Your task to perform on an android device: Go to display settings Image 0: 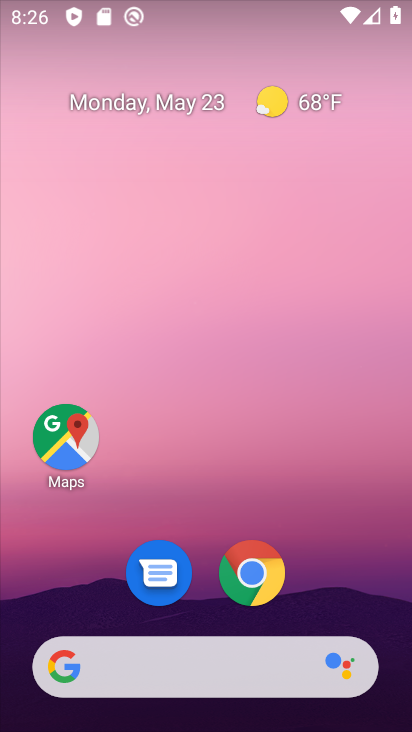
Step 0: press home button
Your task to perform on an android device: Go to display settings Image 1: 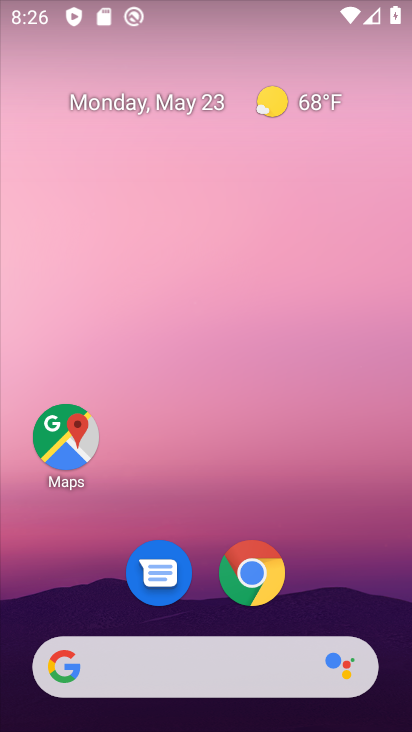
Step 1: drag from (200, 617) to (205, 80)
Your task to perform on an android device: Go to display settings Image 2: 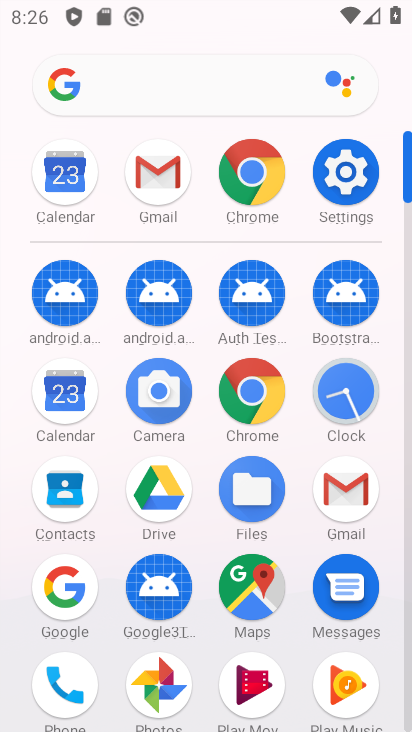
Step 2: click (344, 162)
Your task to perform on an android device: Go to display settings Image 3: 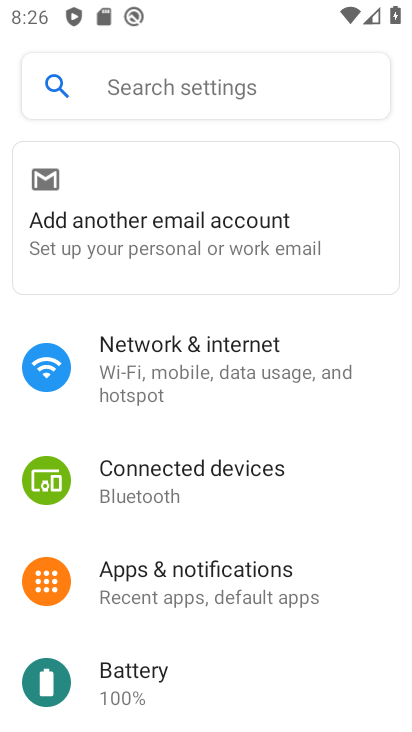
Step 3: drag from (221, 621) to (213, 108)
Your task to perform on an android device: Go to display settings Image 4: 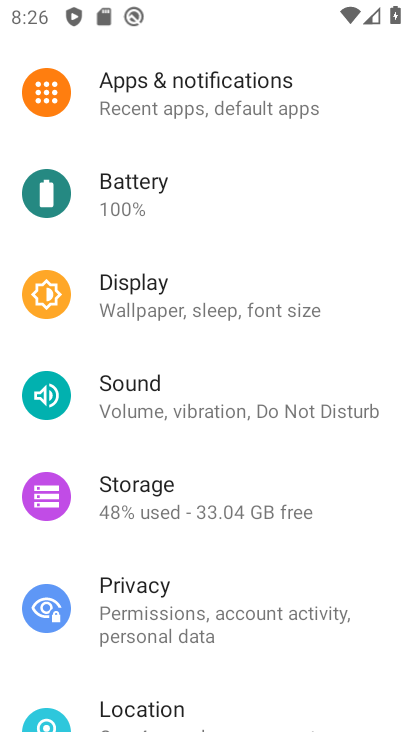
Step 4: click (163, 281)
Your task to perform on an android device: Go to display settings Image 5: 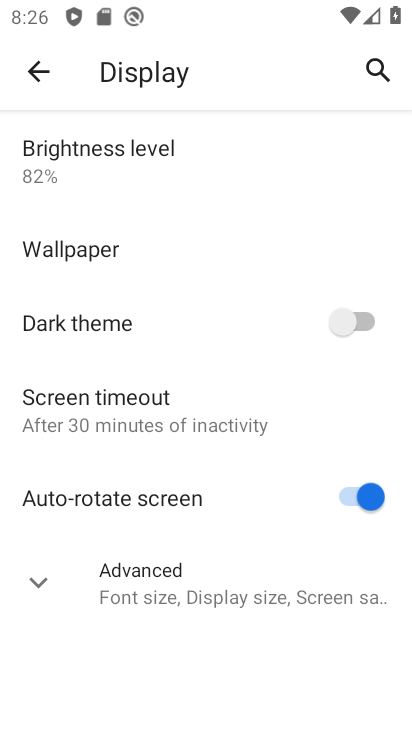
Step 5: click (37, 565)
Your task to perform on an android device: Go to display settings Image 6: 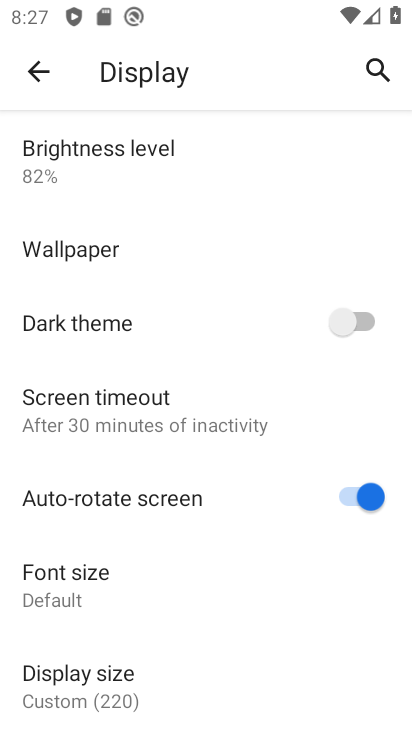
Step 6: task complete